Your task to perform on an android device: Search for seafood restaurants on Google Maps Image 0: 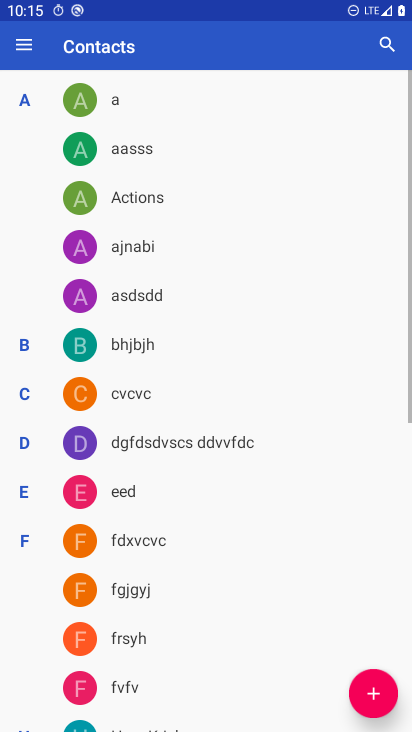
Step 0: click (107, 674)
Your task to perform on an android device: Search for seafood restaurants on Google Maps Image 1: 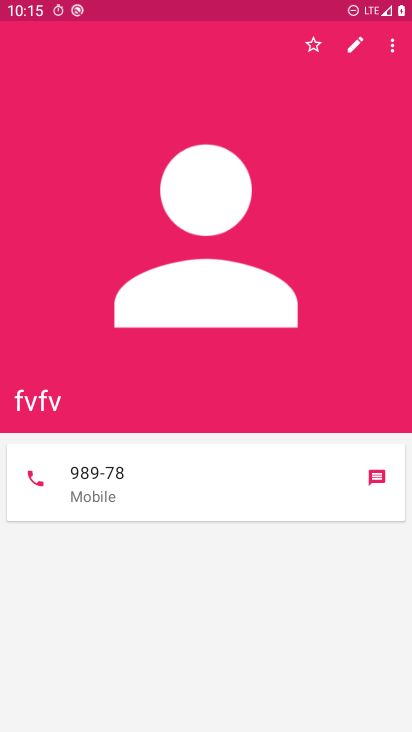
Step 1: press home button
Your task to perform on an android device: Search for seafood restaurants on Google Maps Image 2: 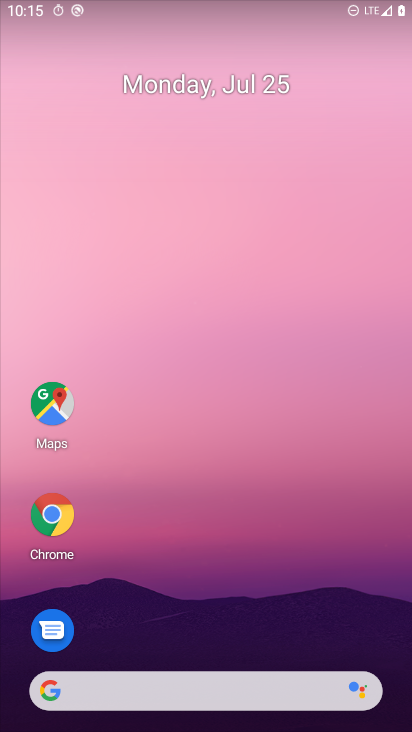
Step 2: click (53, 411)
Your task to perform on an android device: Search for seafood restaurants on Google Maps Image 3: 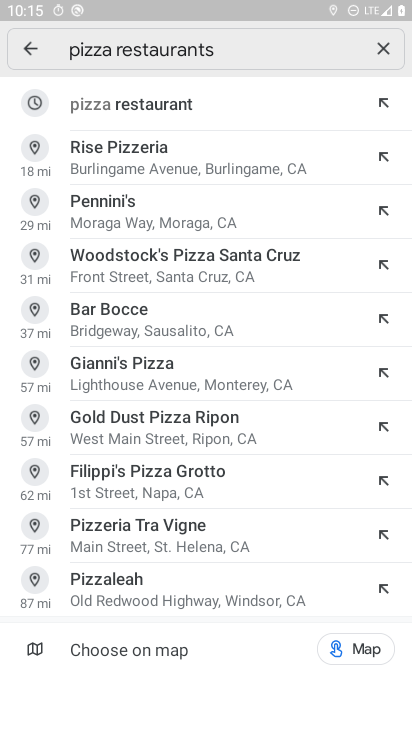
Step 3: click (372, 41)
Your task to perform on an android device: Search for seafood restaurants on Google Maps Image 4: 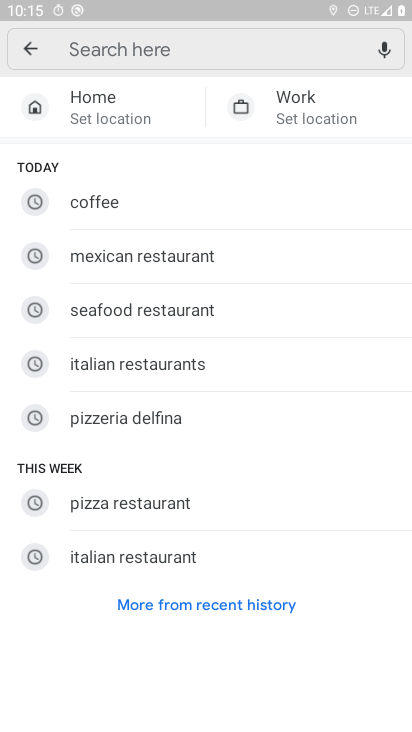
Step 4: click (92, 55)
Your task to perform on an android device: Search for seafood restaurants on Google Maps Image 5: 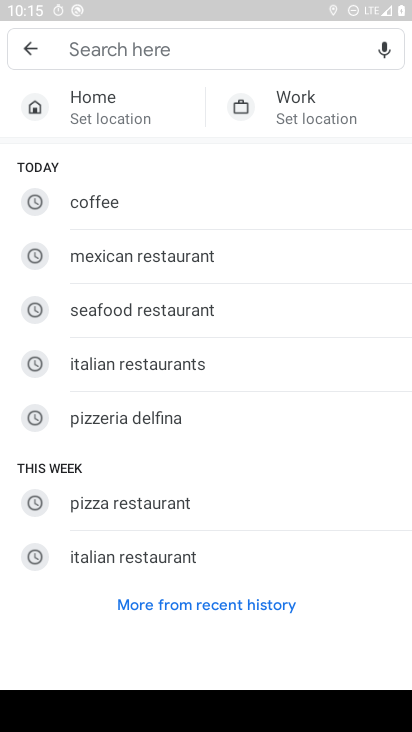
Step 5: click (140, 302)
Your task to perform on an android device: Search for seafood restaurants on Google Maps Image 6: 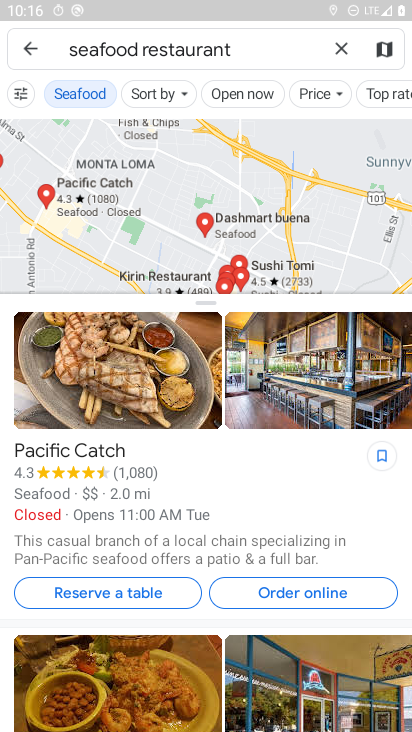
Step 6: task complete